Your task to perform on an android device: Open Amazon Image 0: 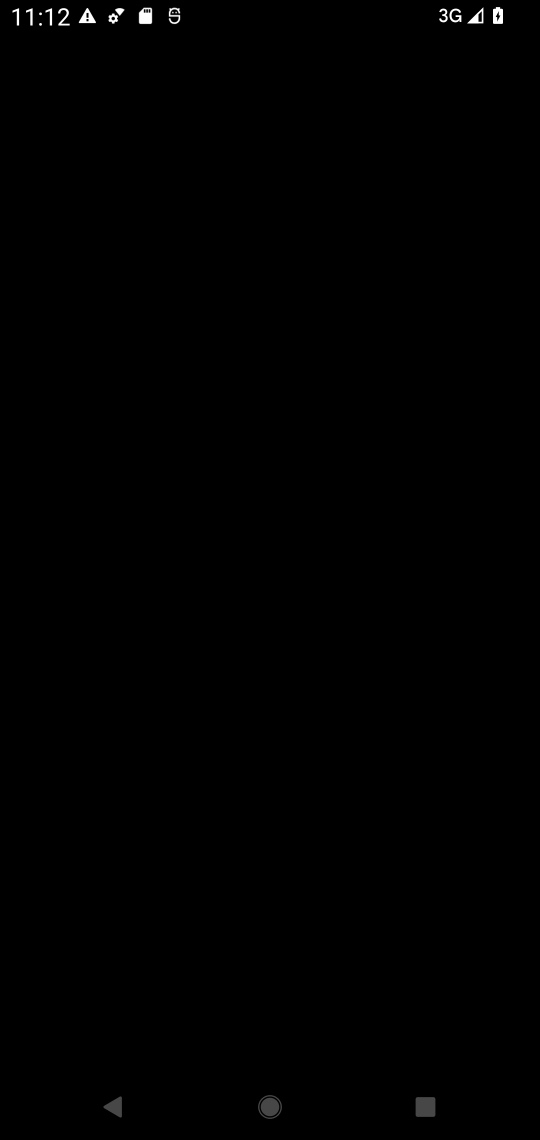
Step 0: press home button
Your task to perform on an android device: Open Amazon Image 1: 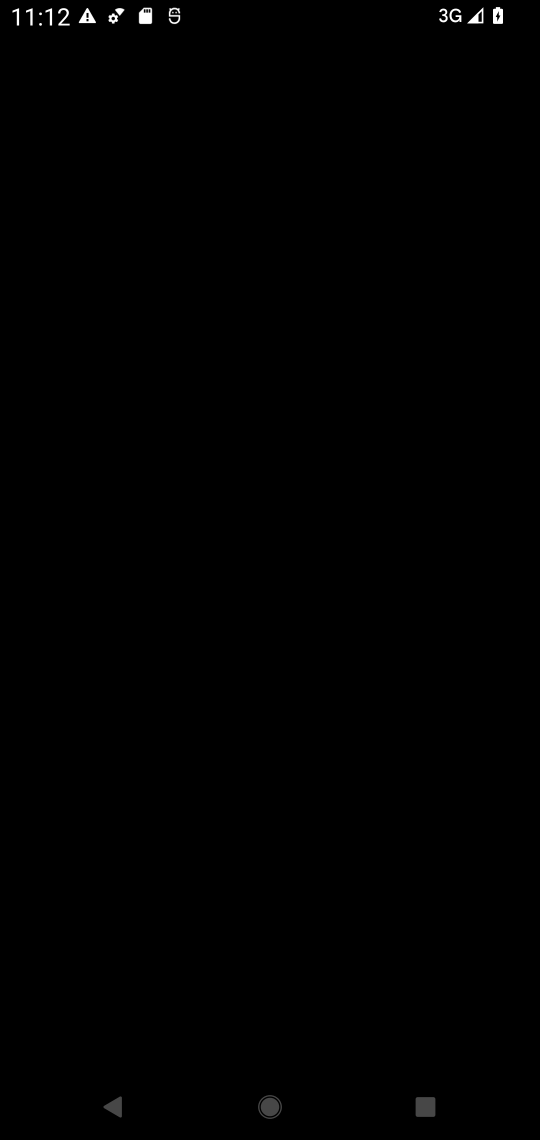
Step 1: click (216, 474)
Your task to perform on an android device: Open Amazon Image 2: 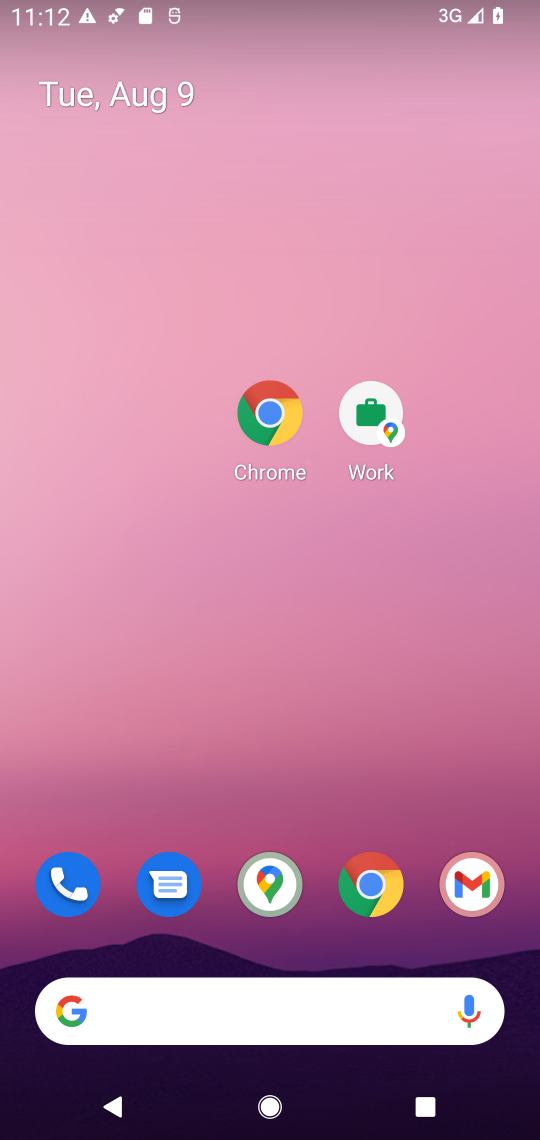
Step 2: drag from (146, 515) to (241, 181)
Your task to perform on an android device: Open Amazon Image 3: 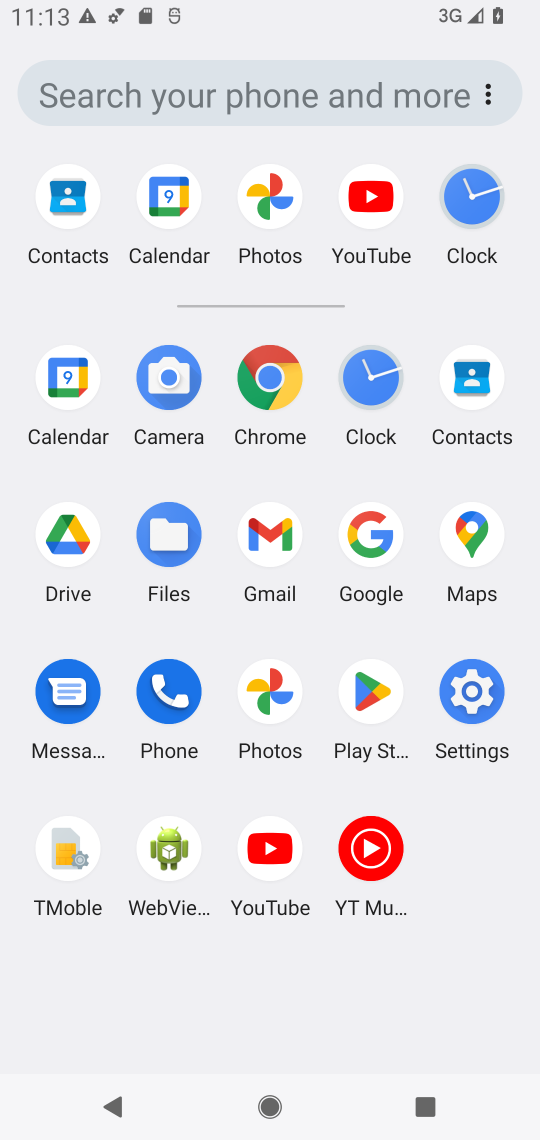
Step 3: click (284, 378)
Your task to perform on an android device: Open Amazon Image 4: 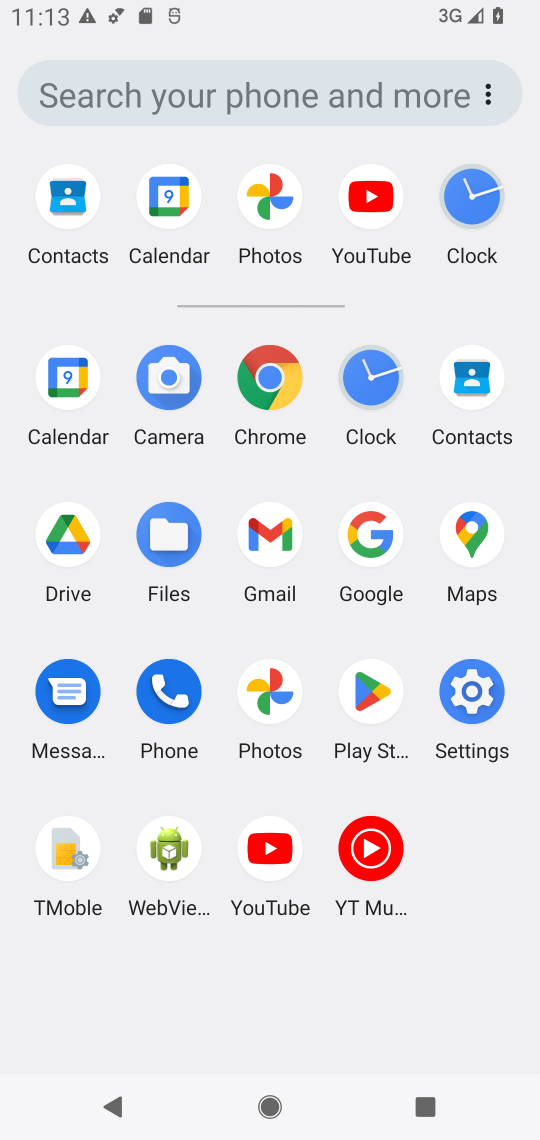
Step 4: click (274, 382)
Your task to perform on an android device: Open Amazon Image 5: 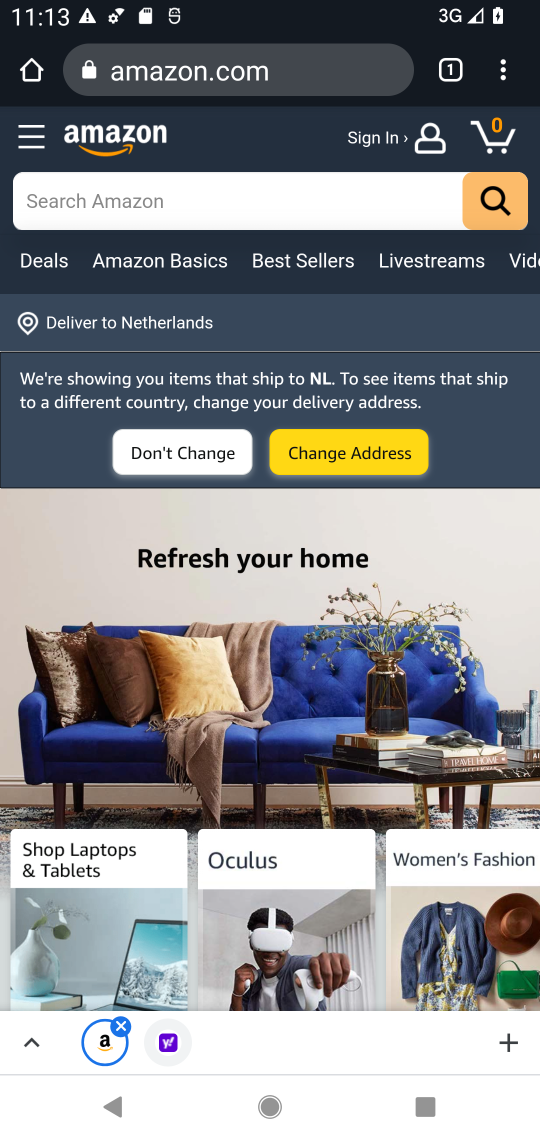
Step 5: task complete